Your task to perform on an android device: open device folders in google photos Image 0: 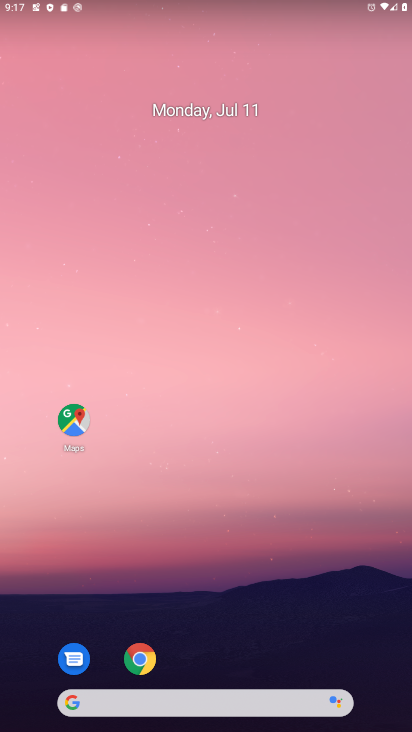
Step 0: drag from (234, 587) to (227, 93)
Your task to perform on an android device: open device folders in google photos Image 1: 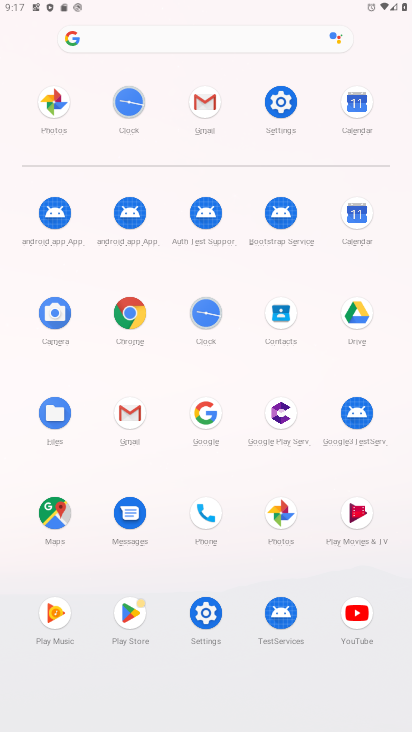
Step 1: click (56, 101)
Your task to perform on an android device: open device folders in google photos Image 2: 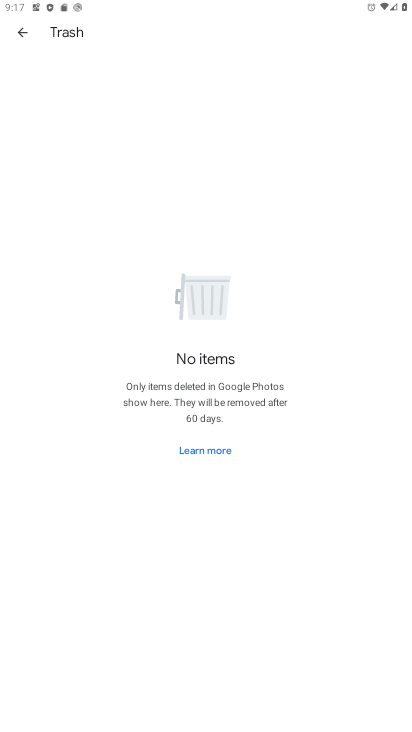
Step 2: click (14, 27)
Your task to perform on an android device: open device folders in google photos Image 3: 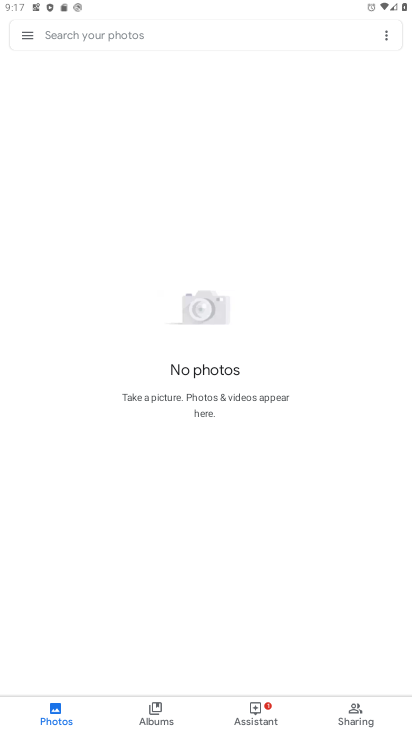
Step 3: click (23, 27)
Your task to perform on an android device: open device folders in google photos Image 4: 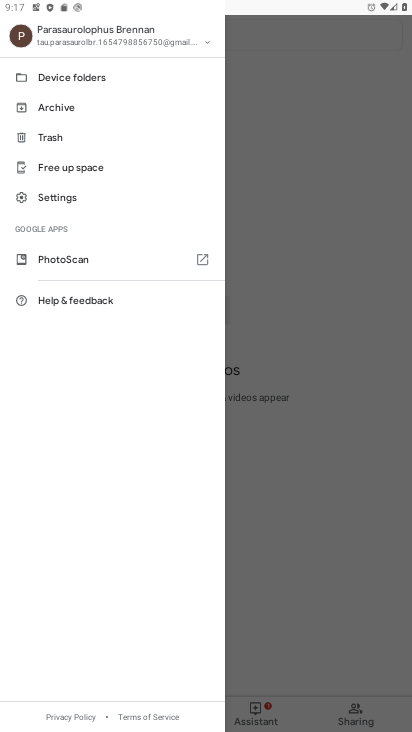
Step 4: click (73, 81)
Your task to perform on an android device: open device folders in google photos Image 5: 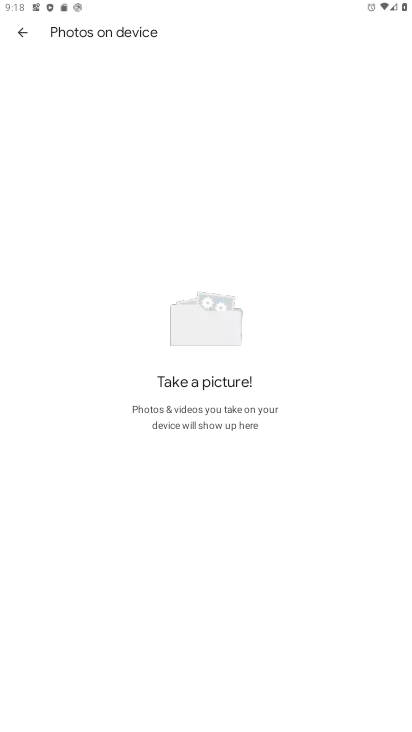
Step 5: task complete